Your task to perform on an android device: turn on location history Image 0: 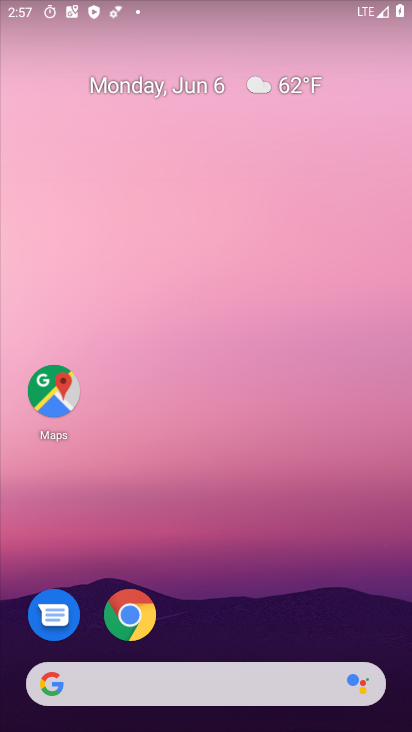
Step 0: drag from (324, 714) to (310, 25)
Your task to perform on an android device: turn on location history Image 1: 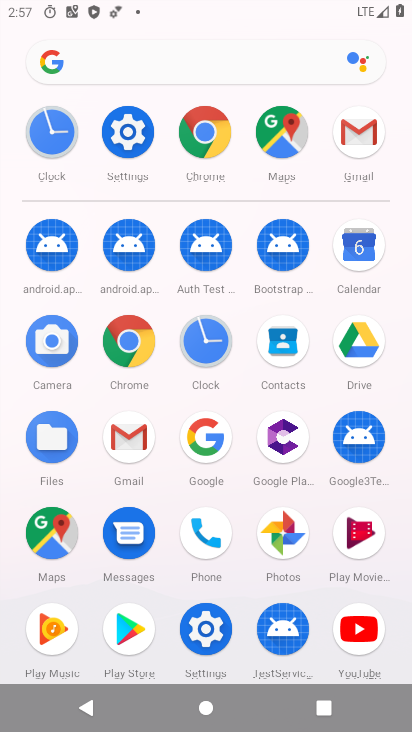
Step 1: click (120, 103)
Your task to perform on an android device: turn on location history Image 2: 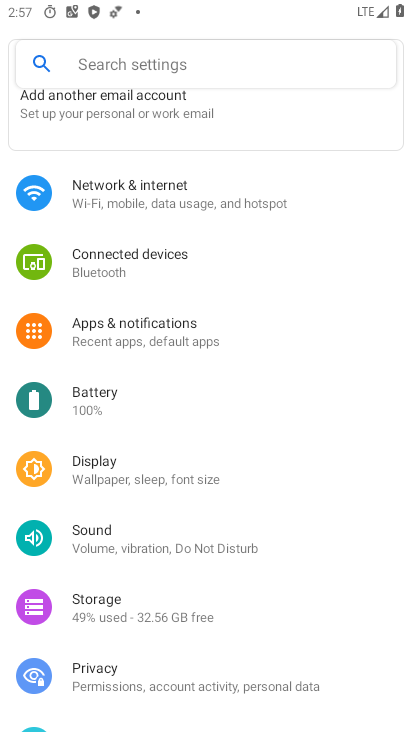
Step 2: drag from (167, 687) to (196, 302)
Your task to perform on an android device: turn on location history Image 3: 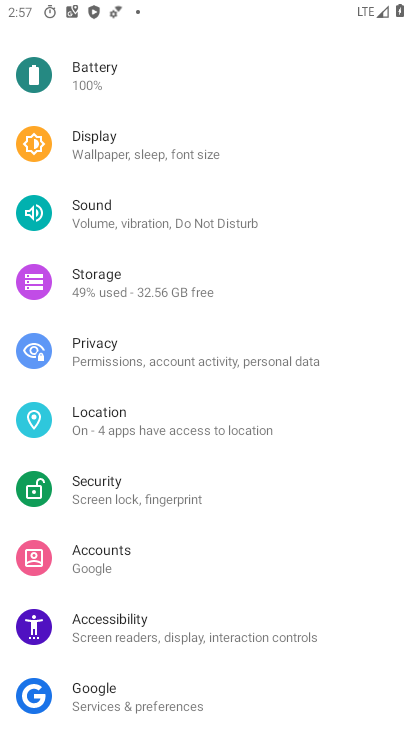
Step 3: click (152, 423)
Your task to perform on an android device: turn on location history Image 4: 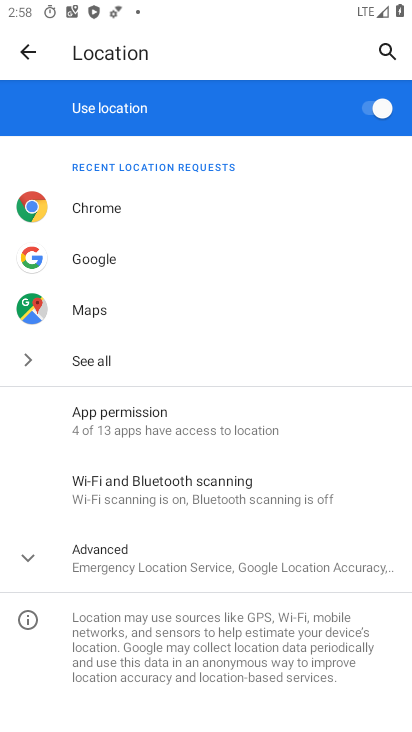
Step 4: click (204, 559)
Your task to perform on an android device: turn on location history Image 5: 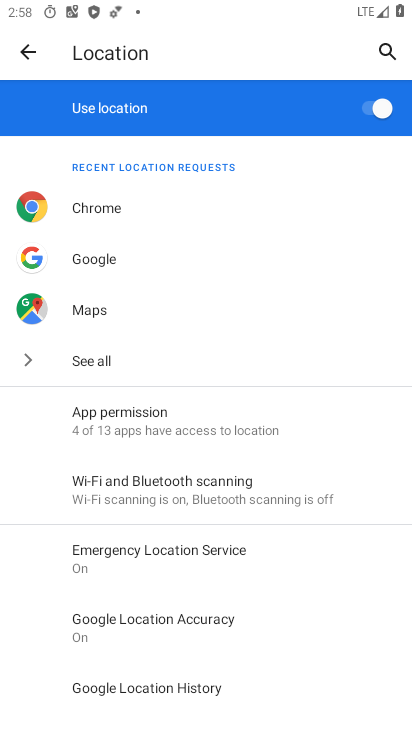
Step 5: click (171, 685)
Your task to perform on an android device: turn on location history Image 6: 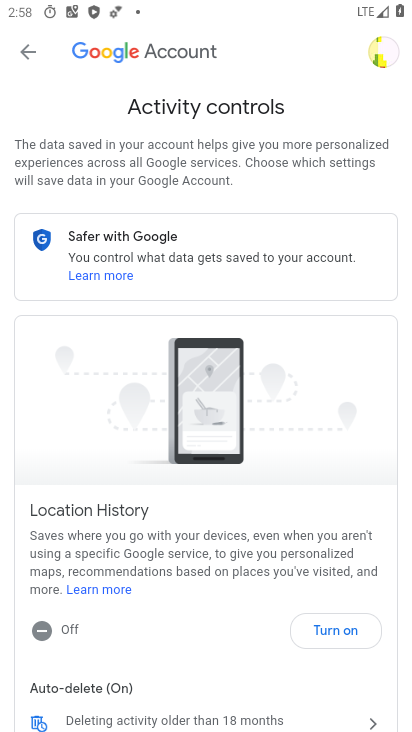
Step 6: click (359, 632)
Your task to perform on an android device: turn on location history Image 7: 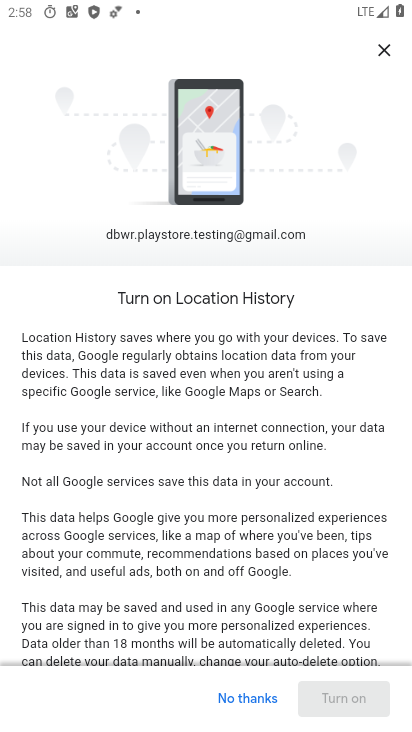
Step 7: drag from (300, 596) to (324, 80)
Your task to perform on an android device: turn on location history Image 8: 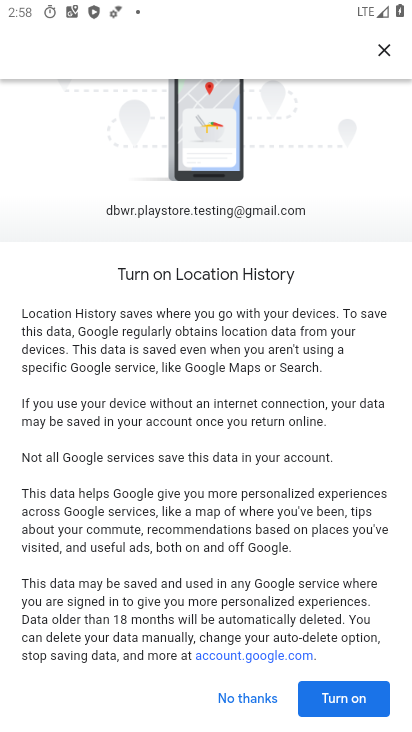
Step 8: click (324, 700)
Your task to perform on an android device: turn on location history Image 9: 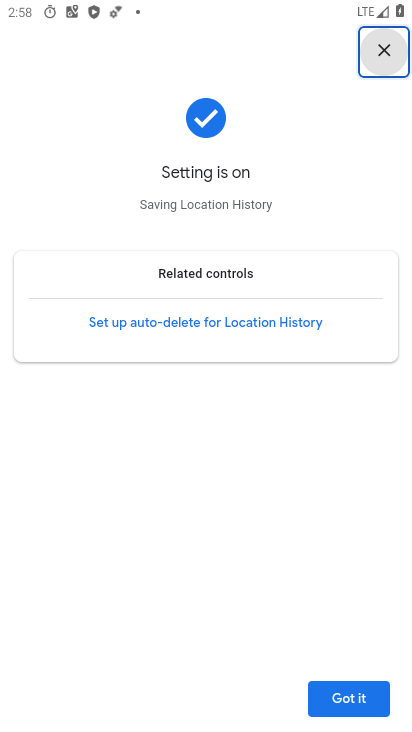
Step 9: task complete